Your task to perform on an android device: choose inbox layout in the gmail app Image 0: 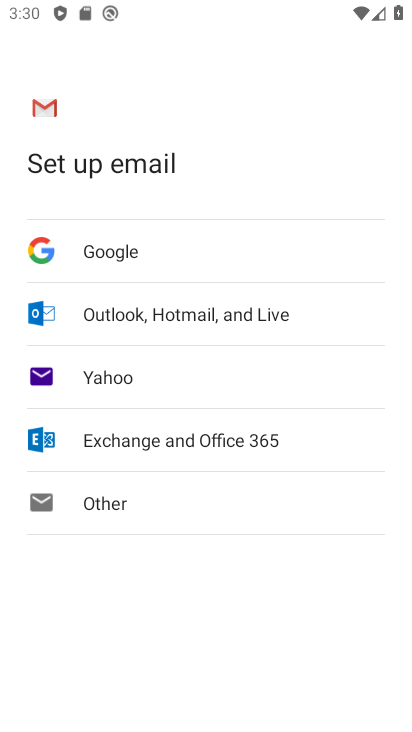
Step 0: press home button
Your task to perform on an android device: choose inbox layout in the gmail app Image 1: 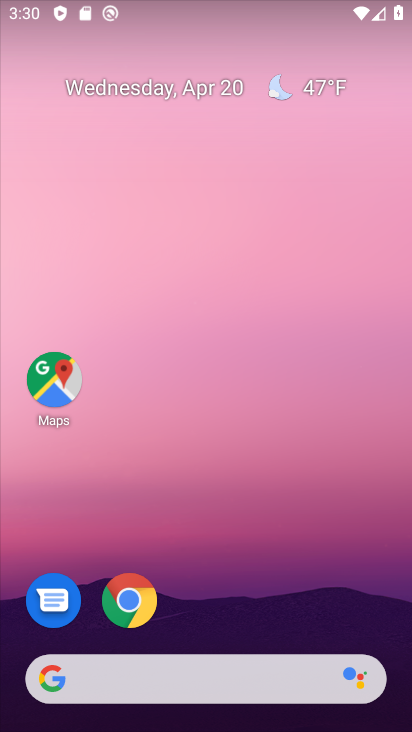
Step 1: drag from (355, 532) to (281, 126)
Your task to perform on an android device: choose inbox layout in the gmail app Image 2: 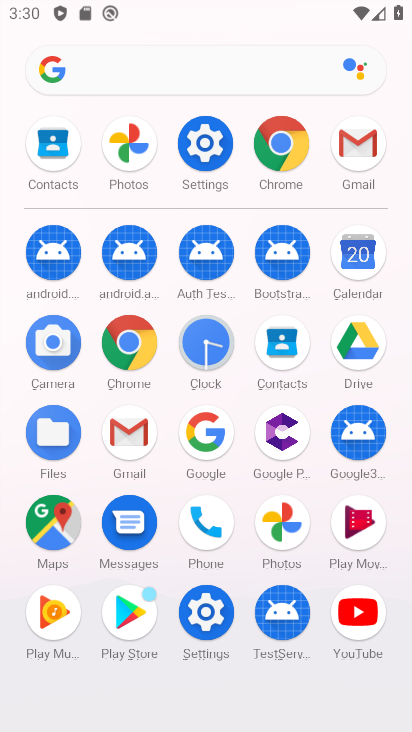
Step 2: click (345, 142)
Your task to perform on an android device: choose inbox layout in the gmail app Image 3: 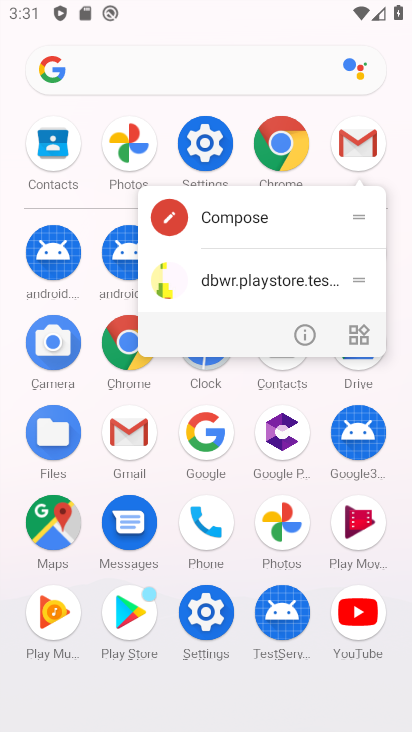
Step 3: click (345, 142)
Your task to perform on an android device: choose inbox layout in the gmail app Image 4: 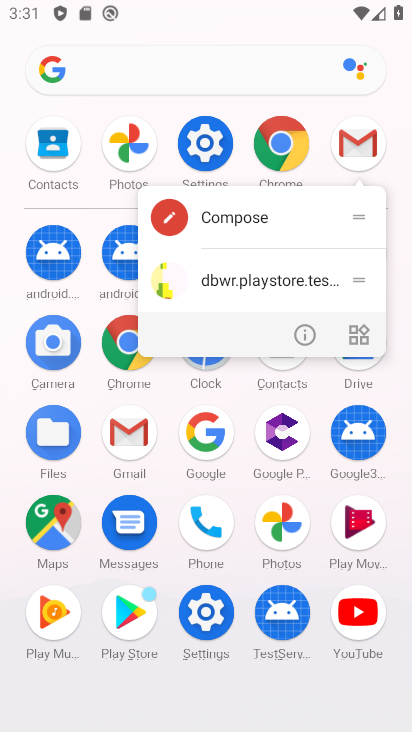
Step 4: click (345, 141)
Your task to perform on an android device: choose inbox layout in the gmail app Image 5: 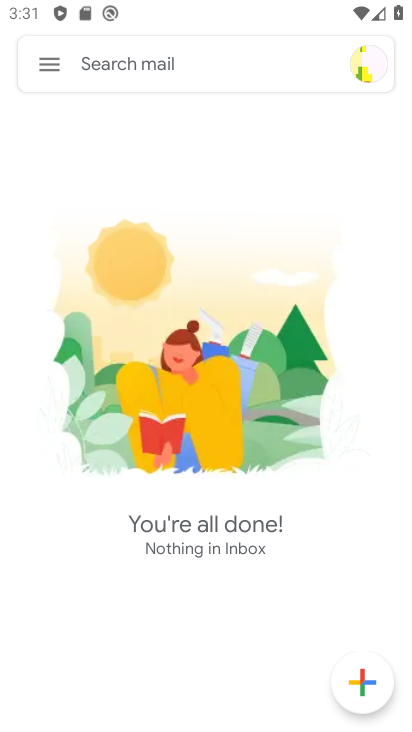
Step 5: click (62, 68)
Your task to perform on an android device: choose inbox layout in the gmail app Image 6: 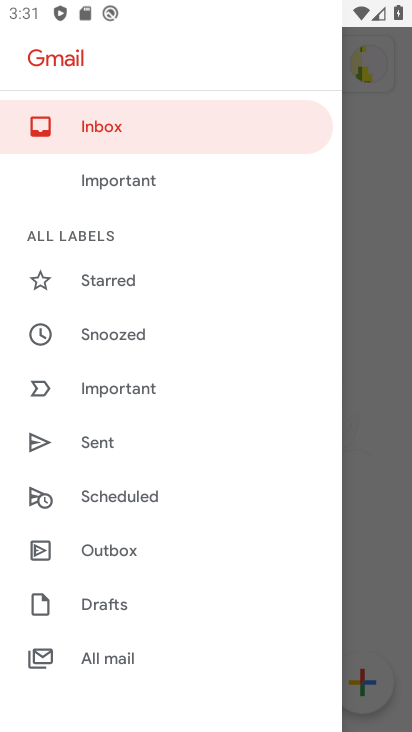
Step 6: drag from (243, 640) to (139, 298)
Your task to perform on an android device: choose inbox layout in the gmail app Image 7: 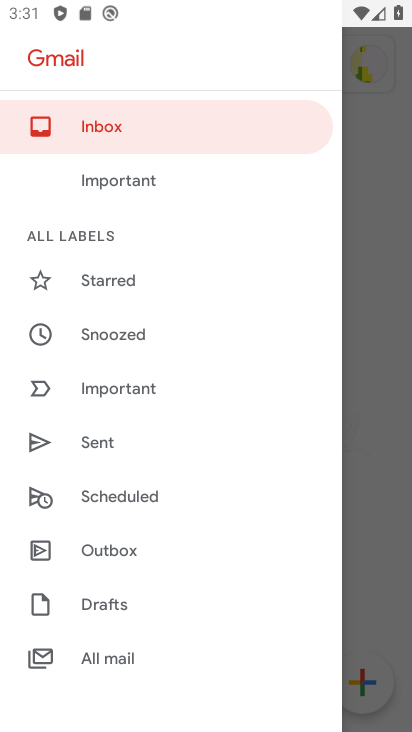
Step 7: drag from (129, 589) to (28, 191)
Your task to perform on an android device: choose inbox layout in the gmail app Image 8: 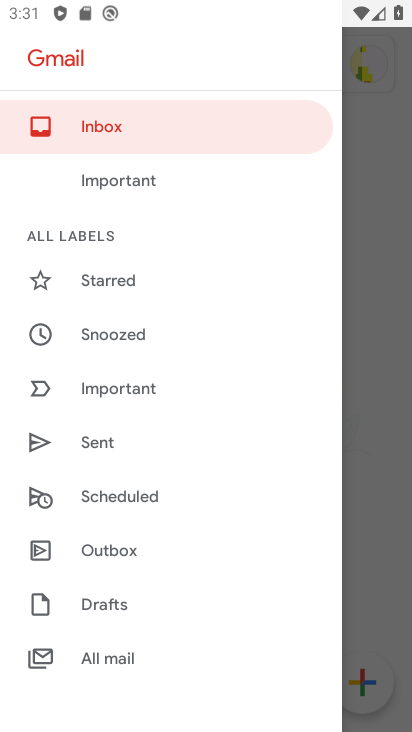
Step 8: drag from (132, 561) to (82, 232)
Your task to perform on an android device: choose inbox layout in the gmail app Image 9: 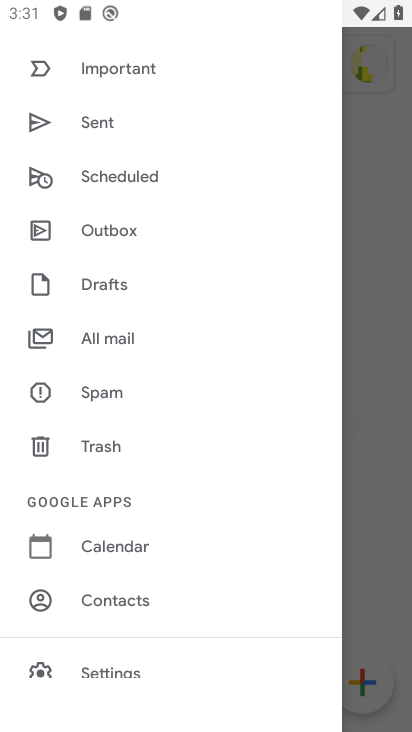
Step 9: drag from (182, 611) to (98, 163)
Your task to perform on an android device: choose inbox layout in the gmail app Image 10: 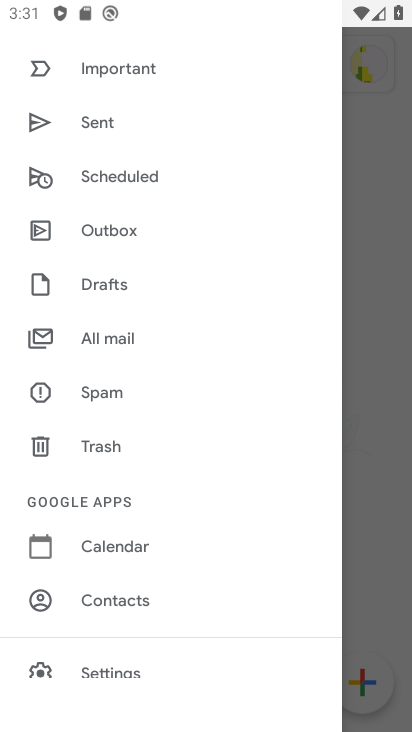
Step 10: drag from (162, 595) to (76, 296)
Your task to perform on an android device: choose inbox layout in the gmail app Image 11: 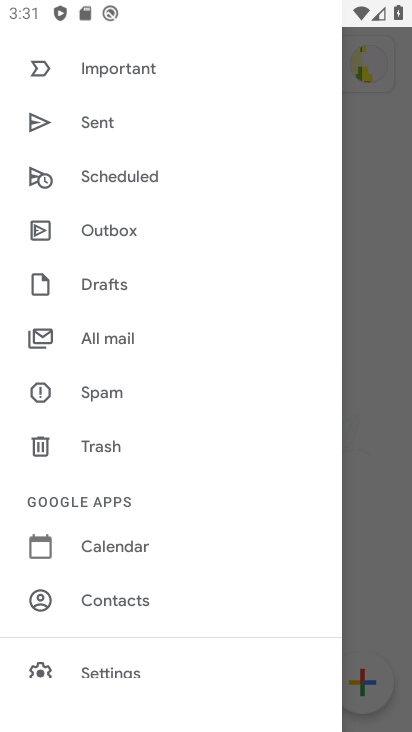
Step 11: drag from (199, 601) to (113, 151)
Your task to perform on an android device: choose inbox layout in the gmail app Image 12: 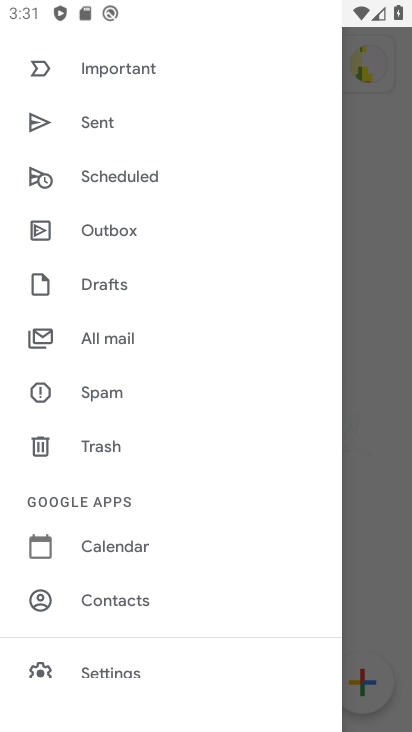
Step 12: click (111, 668)
Your task to perform on an android device: choose inbox layout in the gmail app Image 13: 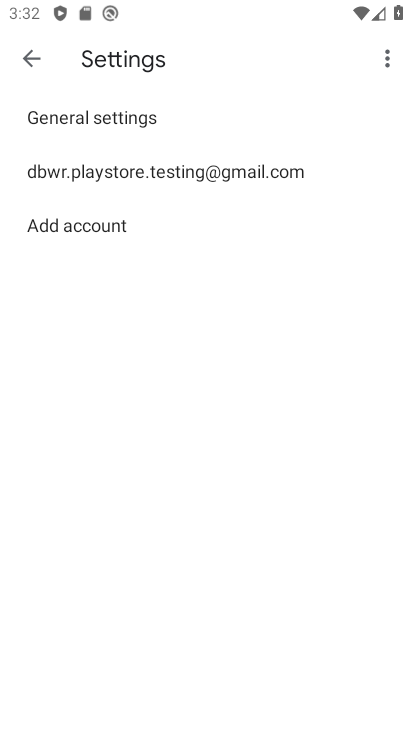
Step 13: click (50, 172)
Your task to perform on an android device: choose inbox layout in the gmail app Image 14: 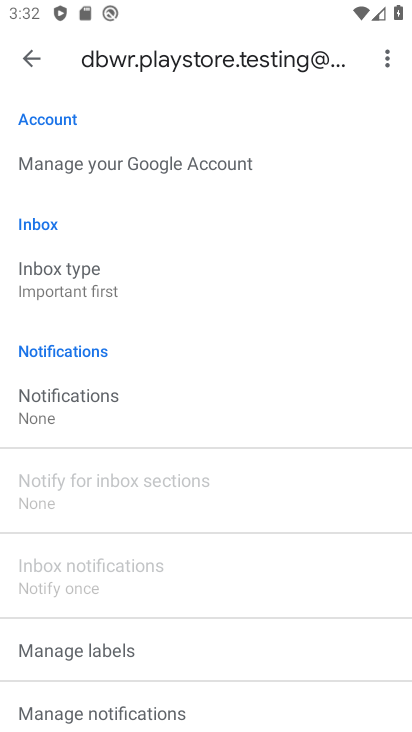
Step 14: click (19, 296)
Your task to perform on an android device: choose inbox layout in the gmail app Image 15: 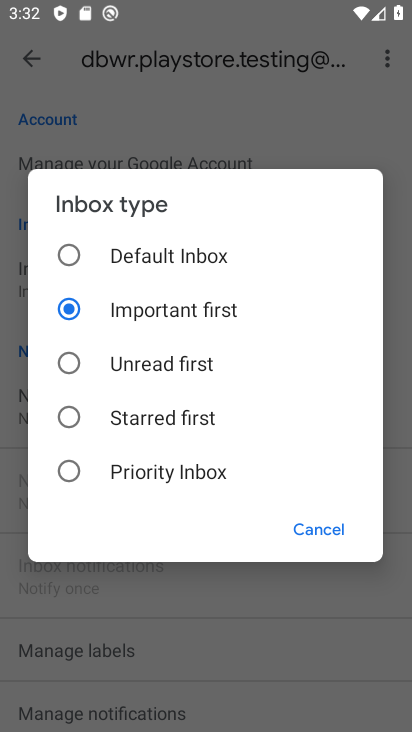
Step 15: click (64, 256)
Your task to perform on an android device: choose inbox layout in the gmail app Image 16: 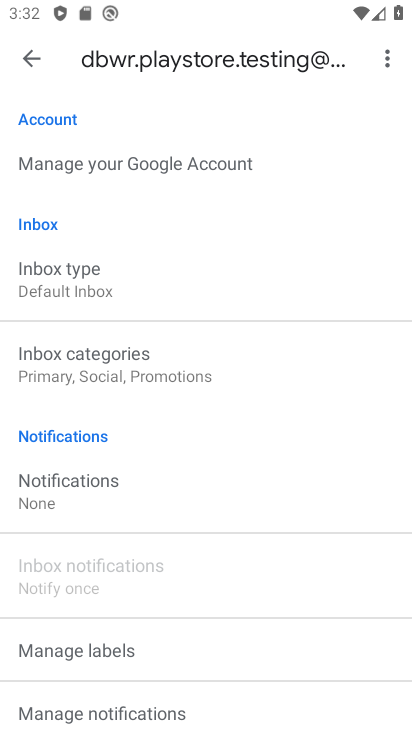
Step 16: task complete